Your task to perform on an android device: What is the recent news? Image 0: 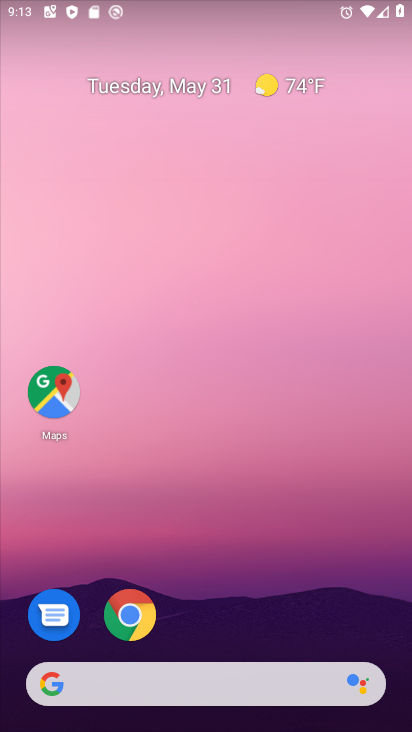
Step 0: drag from (234, 645) to (206, 260)
Your task to perform on an android device: What is the recent news? Image 1: 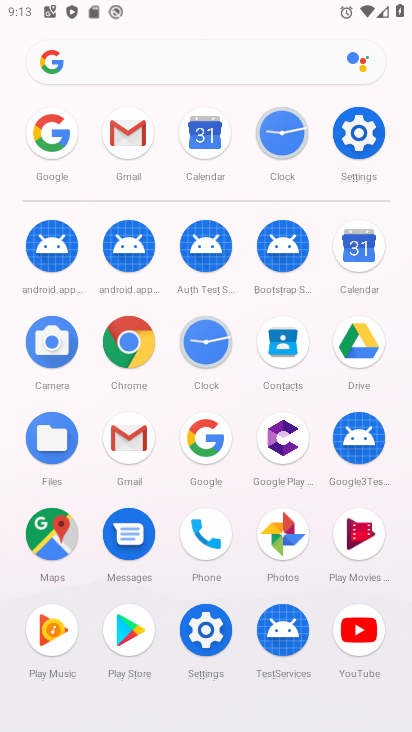
Step 1: click (199, 439)
Your task to perform on an android device: What is the recent news? Image 2: 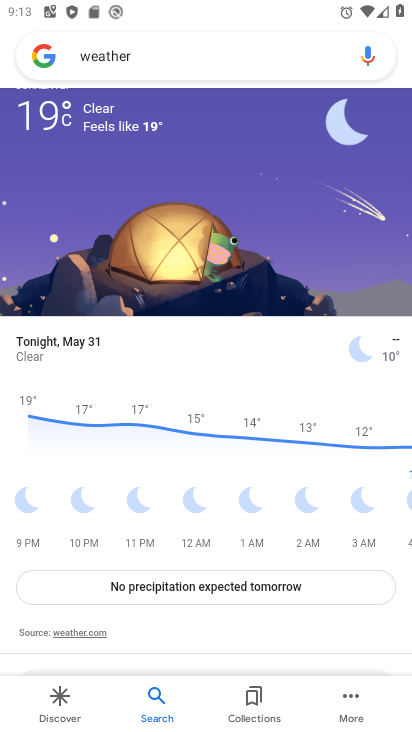
Step 2: click (183, 54)
Your task to perform on an android device: What is the recent news? Image 3: 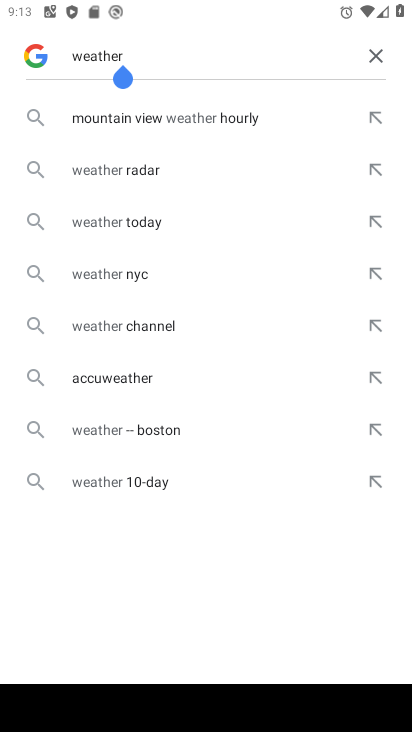
Step 3: click (374, 56)
Your task to perform on an android device: What is the recent news? Image 4: 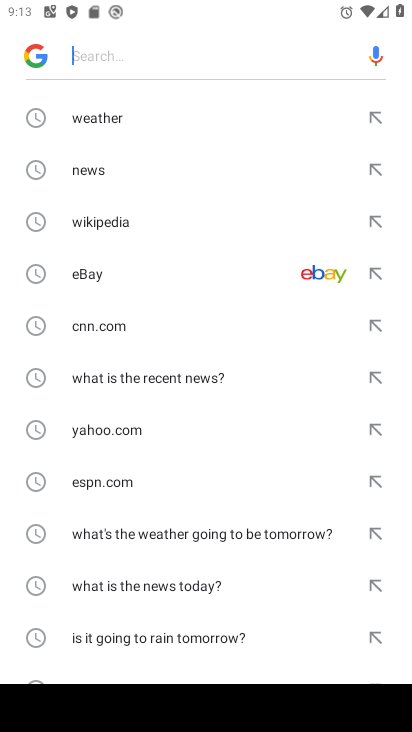
Step 4: click (117, 166)
Your task to perform on an android device: What is the recent news? Image 5: 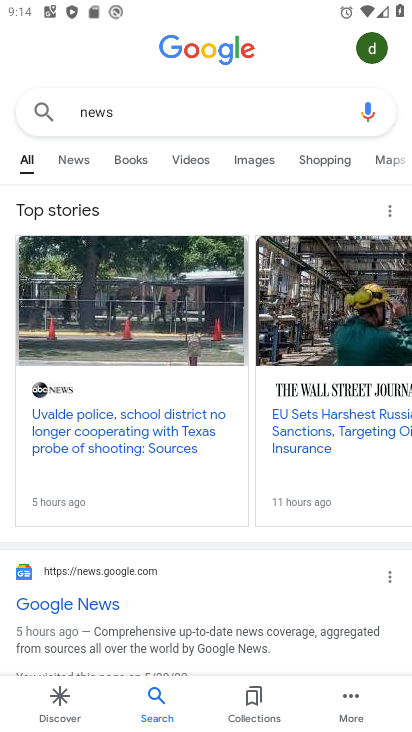
Step 5: click (81, 160)
Your task to perform on an android device: What is the recent news? Image 6: 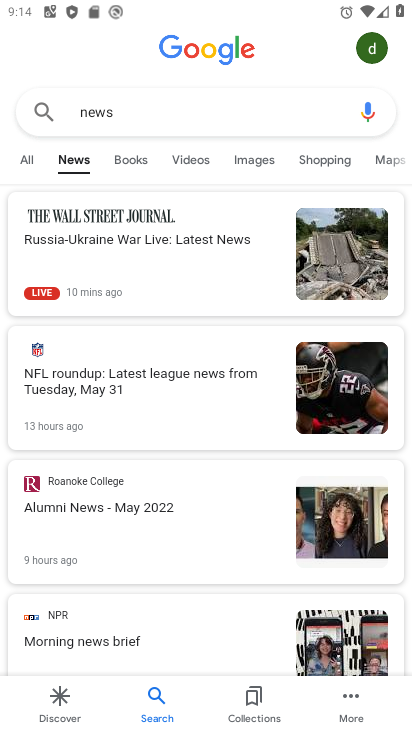
Step 6: task complete